Your task to perform on an android device: Show me the alarms in the clock app Image 0: 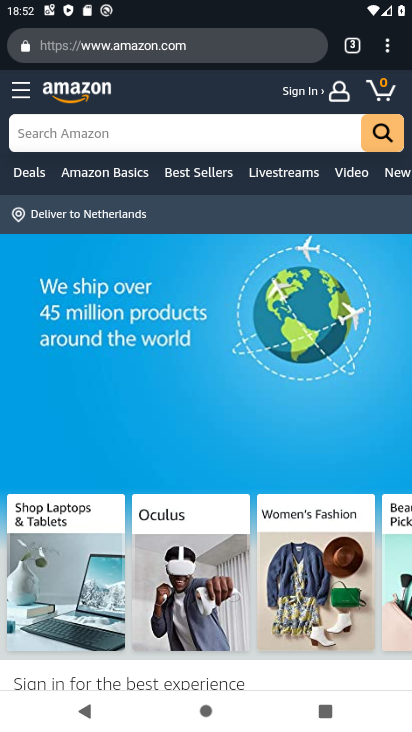
Step 0: press home button
Your task to perform on an android device: Show me the alarms in the clock app Image 1: 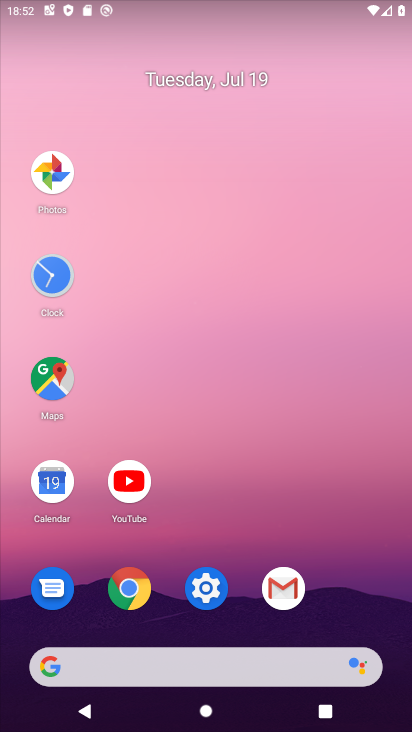
Step 1: click (44, 274)
Your task to perform on an android device: Show me the alarms in the clock app Image 2: 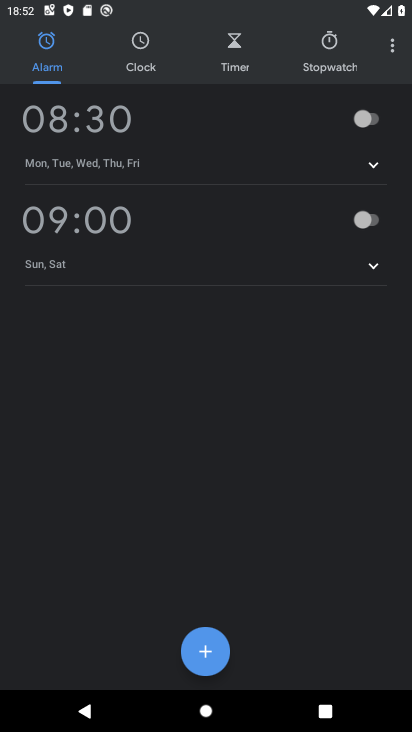
Step 2: task complete